Your task to perform on an android device: create a new album in the google photos Image 0: 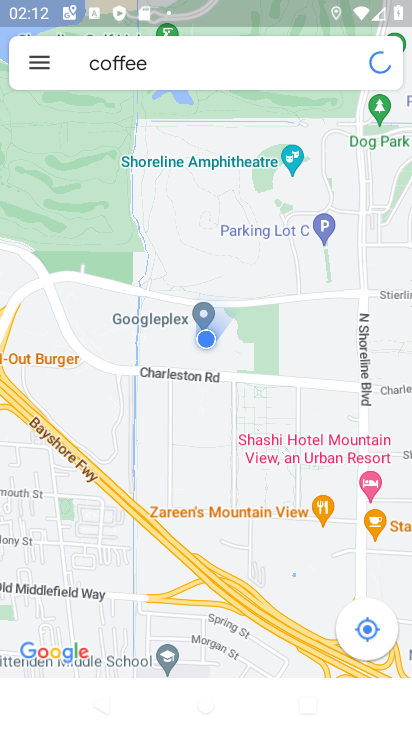
Step 0: press home button
Your task to perform on an android device: create a new album in the google photos Image 1: 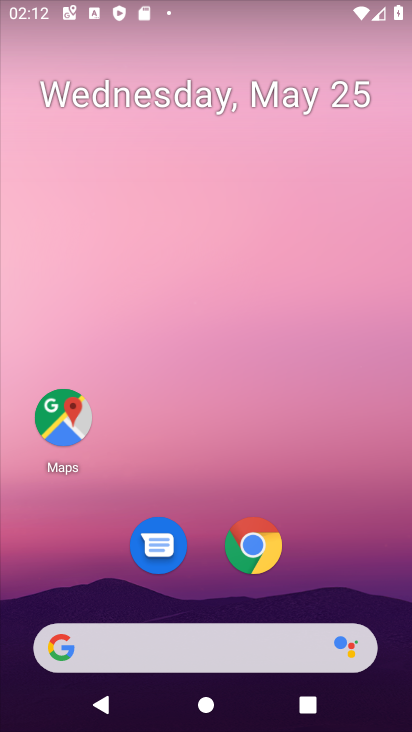
Step 1: drag from (357, 558) to (273, 22)
Your task to perform on an android device: create a new album in the google photos Image 2: 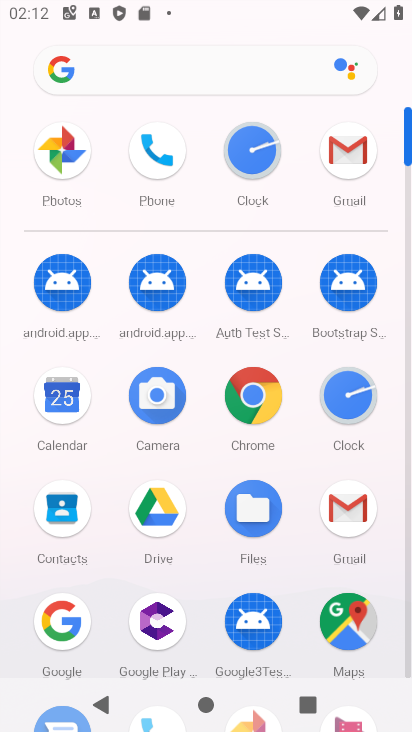
Step 2: click (409, 649)
Your task to perform on an android device: create a new album in the google photos Image 3: 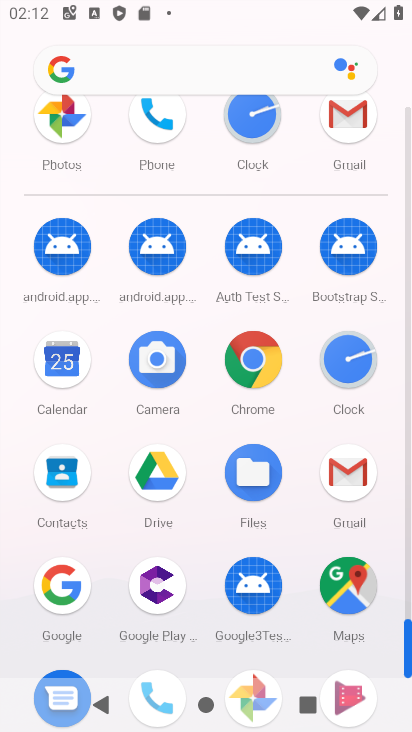
Step 3: click (409, 649)
Your task to perform on an android device: create a new album in the google photos Image 4: 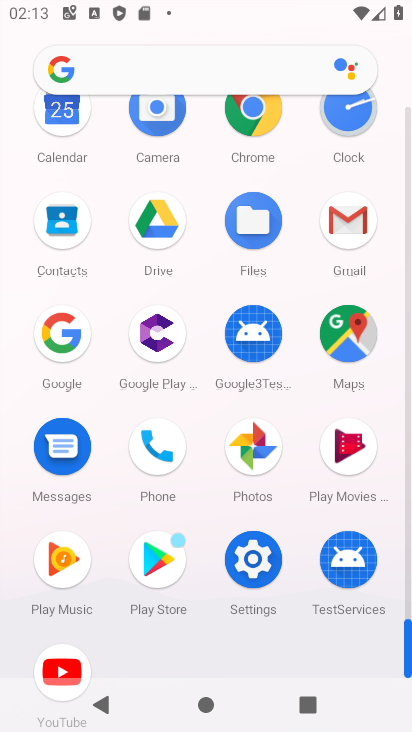
Step 4: click (230, 466)
Your task to perform on an android device: create a new album in the google photos Image 5: 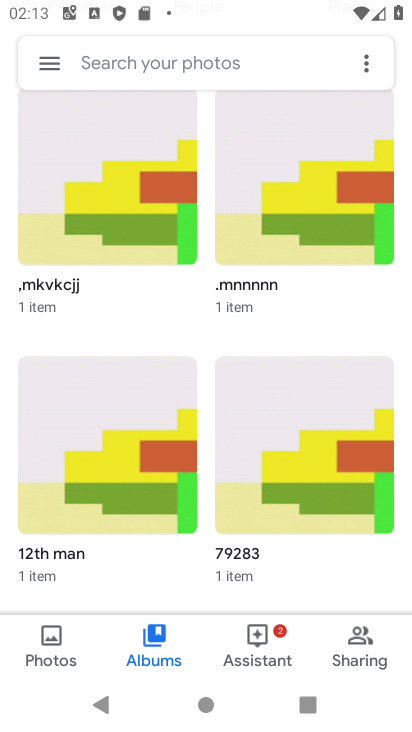
Step 5: task complete